Your task to perform on an android device: turn off javascript in the chrome app Image 0: 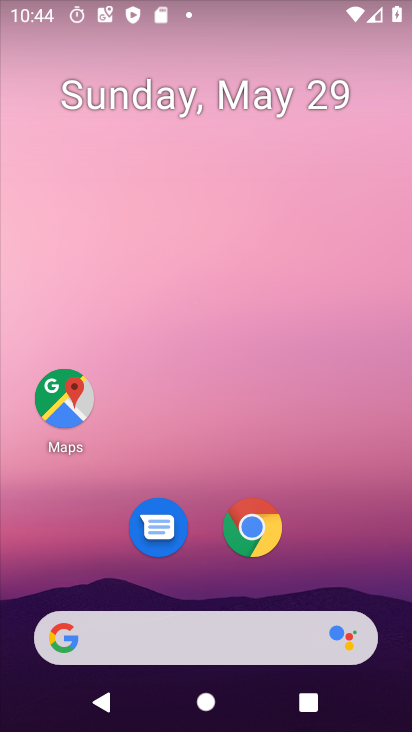
Step 0: drag from (328, 527) to (295, 2)
Your task to perform on an android device: turn off javascript in the chrome app Image 1: 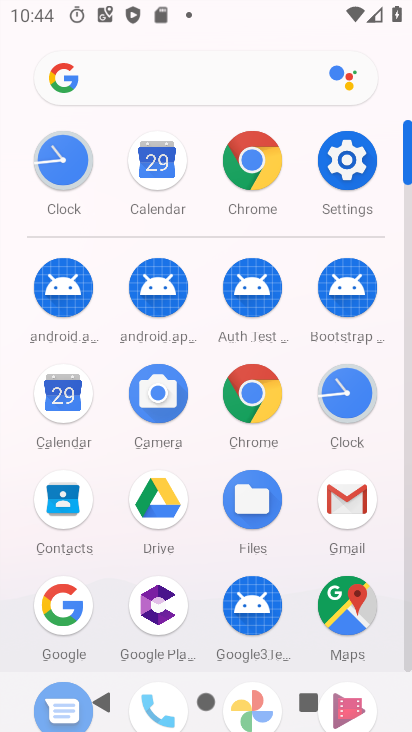
Step 1: click (247, 398)
Your task to perform on an android device: turn off javascript in the chrome app Image 2: 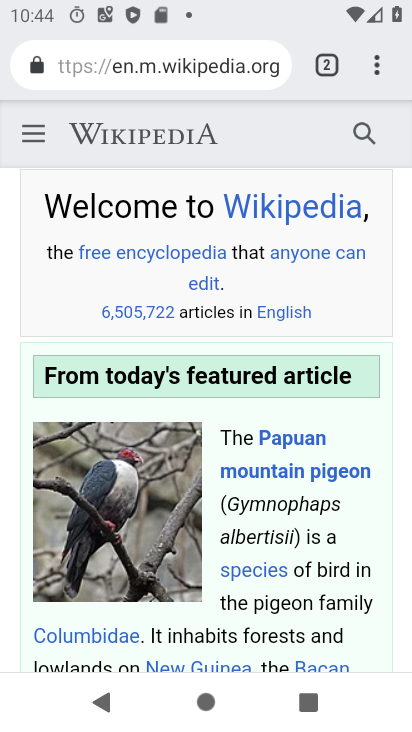
Step 2: drag from (375, 58) to (235, 577)
Your task to perform on an android device: turn off javascript in the chrome app Image 3: 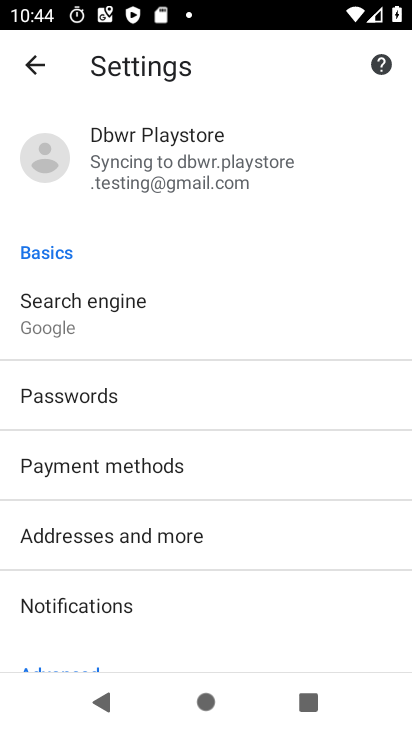
Step 3: drag from (219, 578) to (228, 31)
Your task to perform on an android device: turn off javascript in the chrome app Image 4: 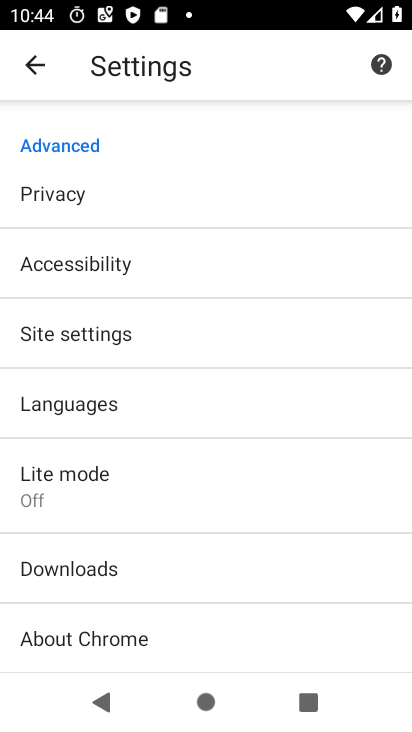
Step 4: click (91, 332)
Your task to perform on an android device: turn off javascript in the chrome app Image 5: 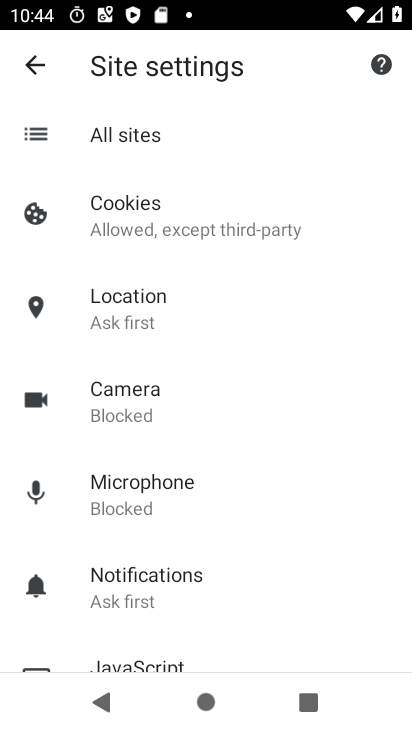
Step 5: drag from (268, 558) to (261, 112)
Your task to perform on an android device: turn off javascript in the chrome app Image 6: 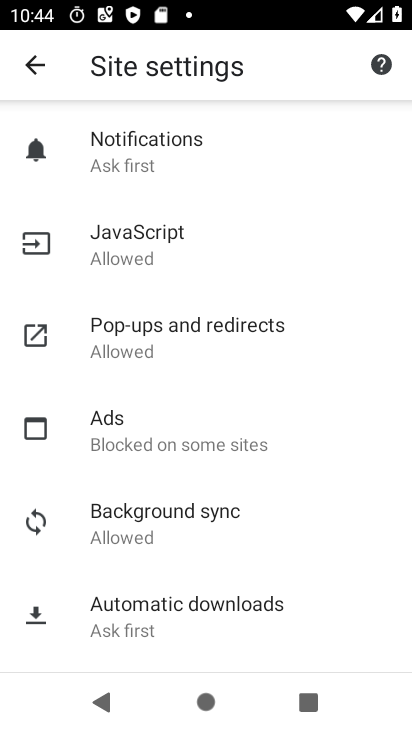
Step 6: click (178, 252)
Your task to perform on an android device: turn off javascript in the chrome app Image 7: 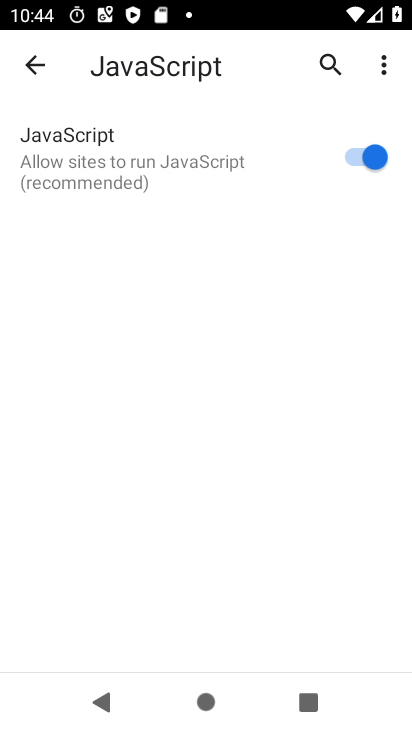
Step 7: click (386, 150)
Your task to perform on an android device: turn off javascript in the chrome app Image 8: 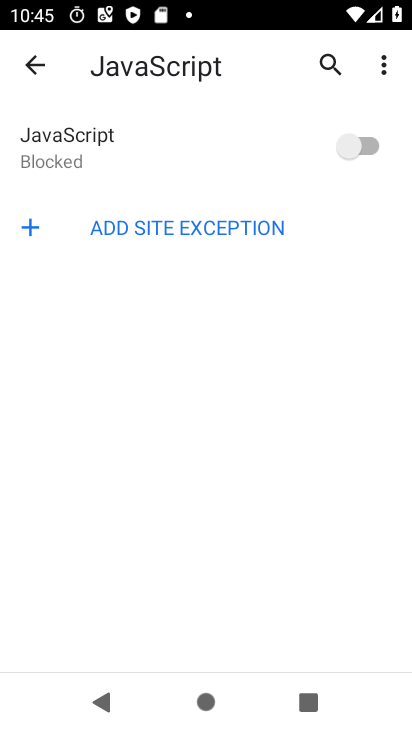
Step 8: task complete